Your task to perform on an android device: open a bookmark in the chrome app Image 0: 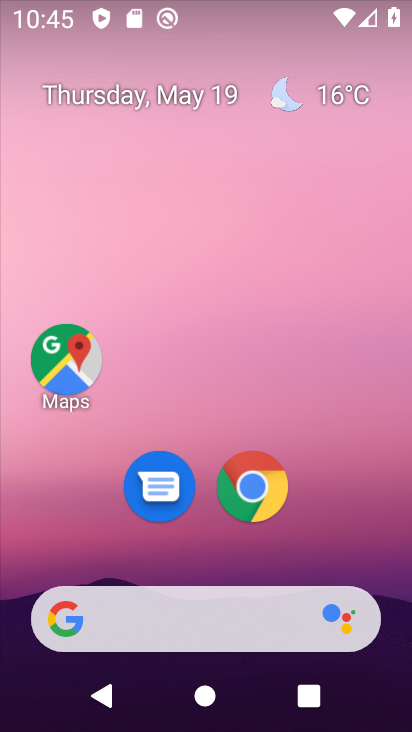
Step 0: click (273, 474)
Your task to perform on an android device: open a bookmark in the chrome app Image 1: 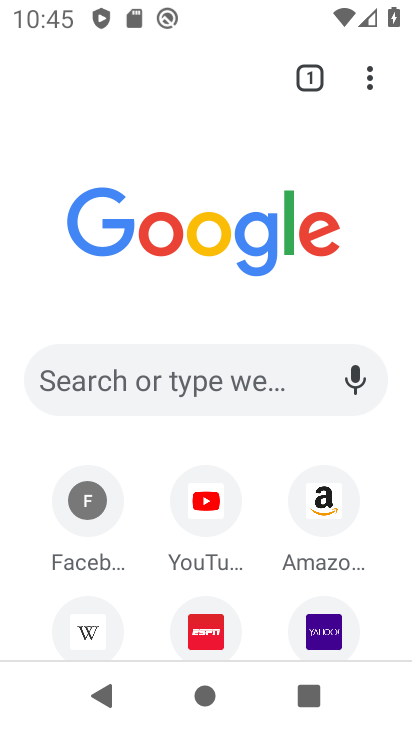
Step 1: click (363, 62)
Your task to perform on an android device: open a bookmark in the chrome app Image 2: 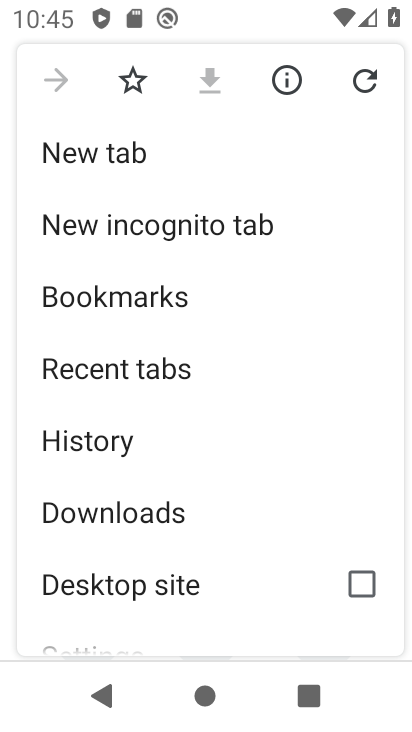
Step 2: click (143, 315)
Your task to perform on an android device: open a bookmark in the chrome app Image 3: 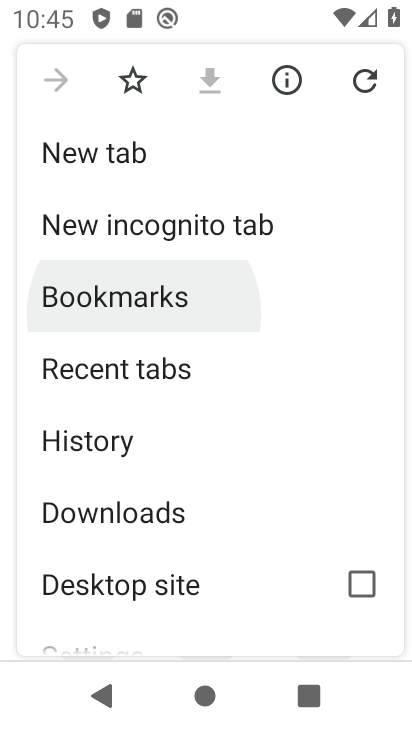
Step 3: click (143, 315)
Your task to perform on an android device: open a bookmark in the chrome app Image 4: 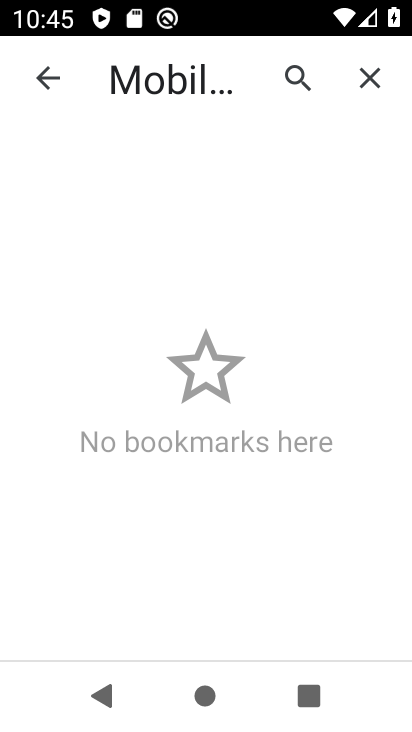
Step 4: task complete